Your task to perform on an android device: open wifi settings Image 0: 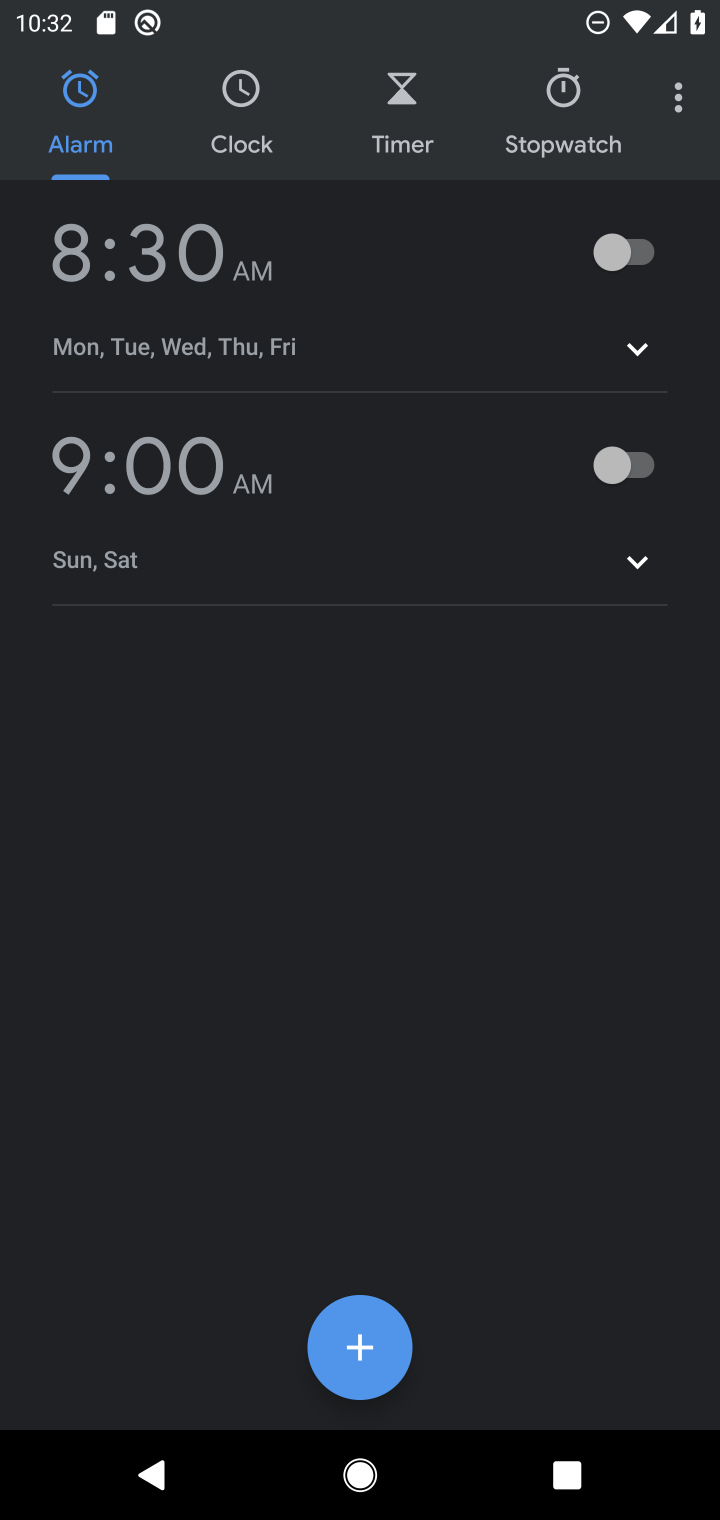
Step 0: press home button
Your task to perform on an android device: open wifi settings Image 1: 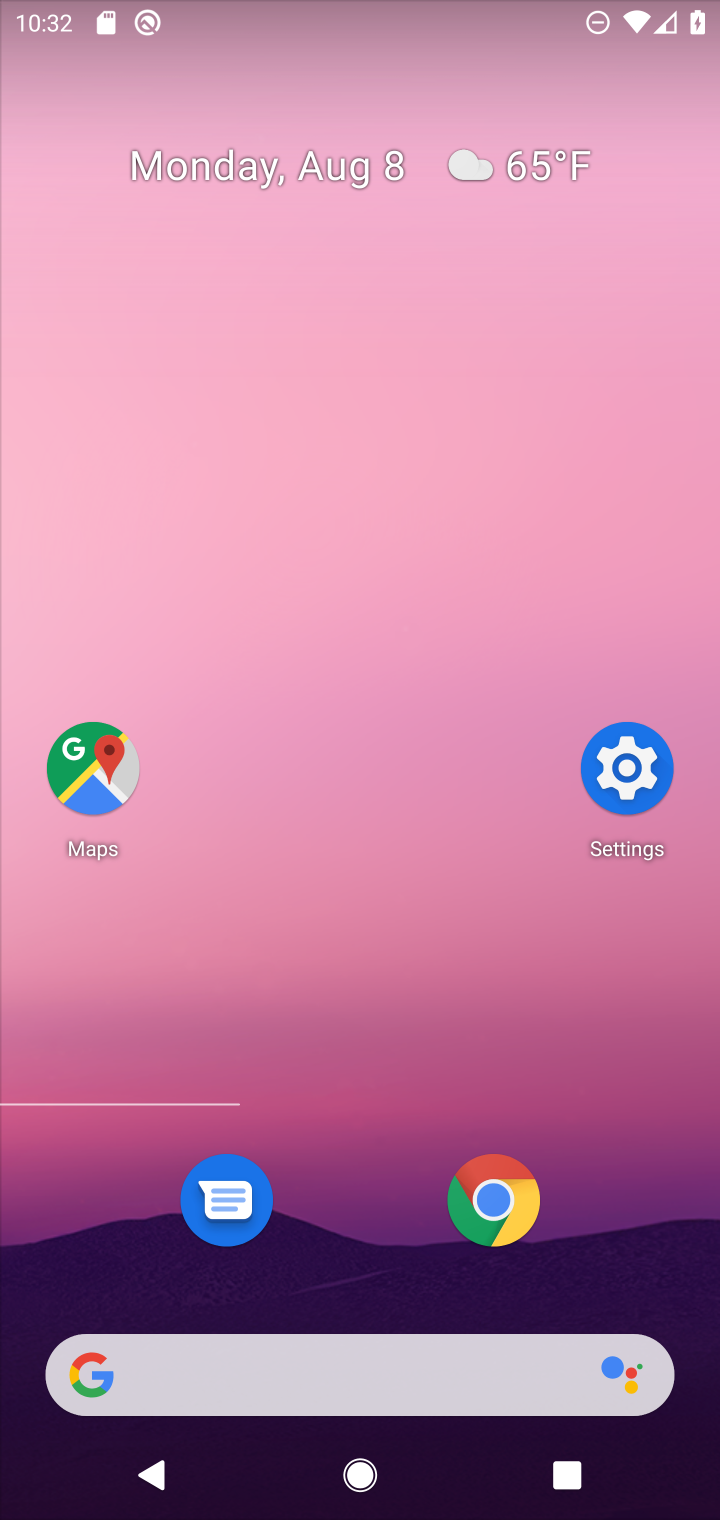
Step 1: click (627, 764)
Your task to perform on an android device: open wifi settings Image 2: 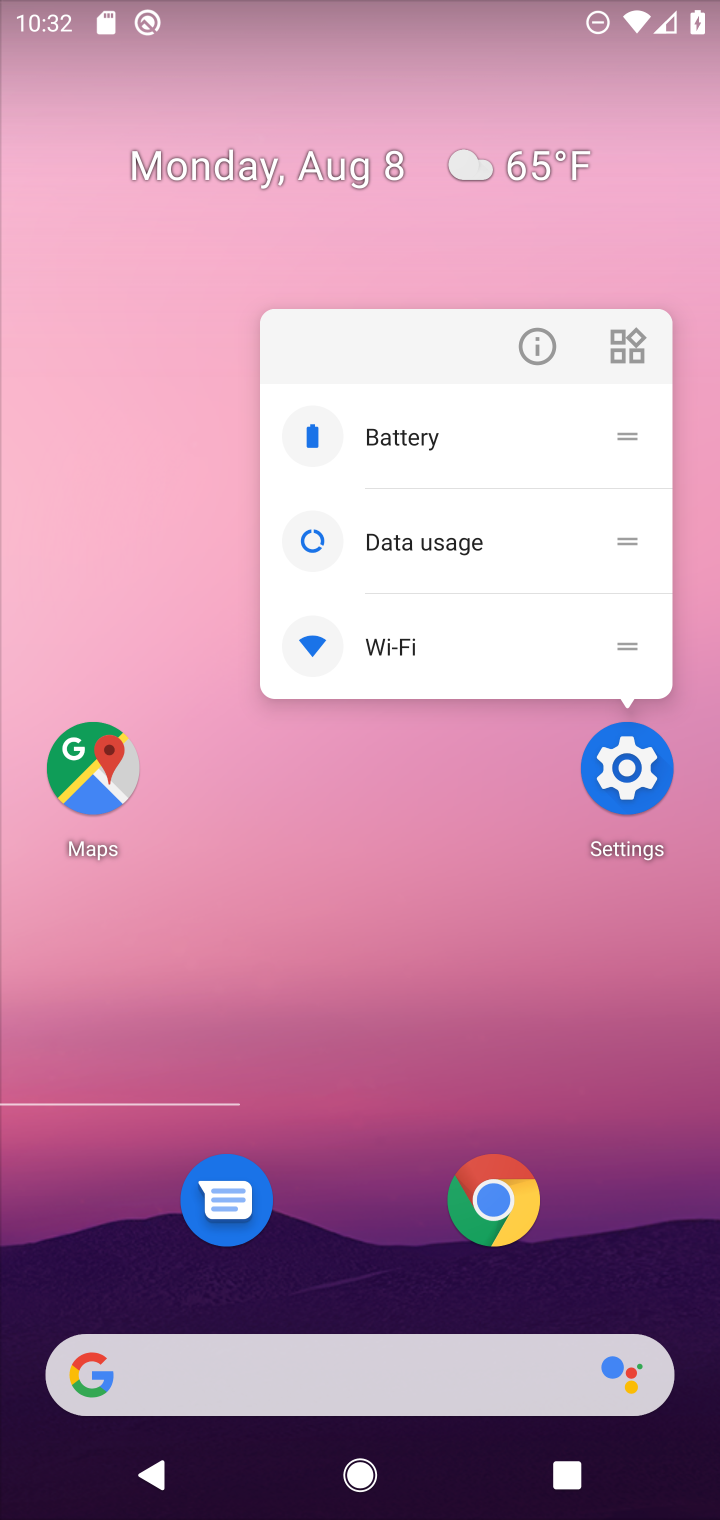
Step 2: click (627, 778)
Your task to perform on an android device: open wifi settings Image 3: 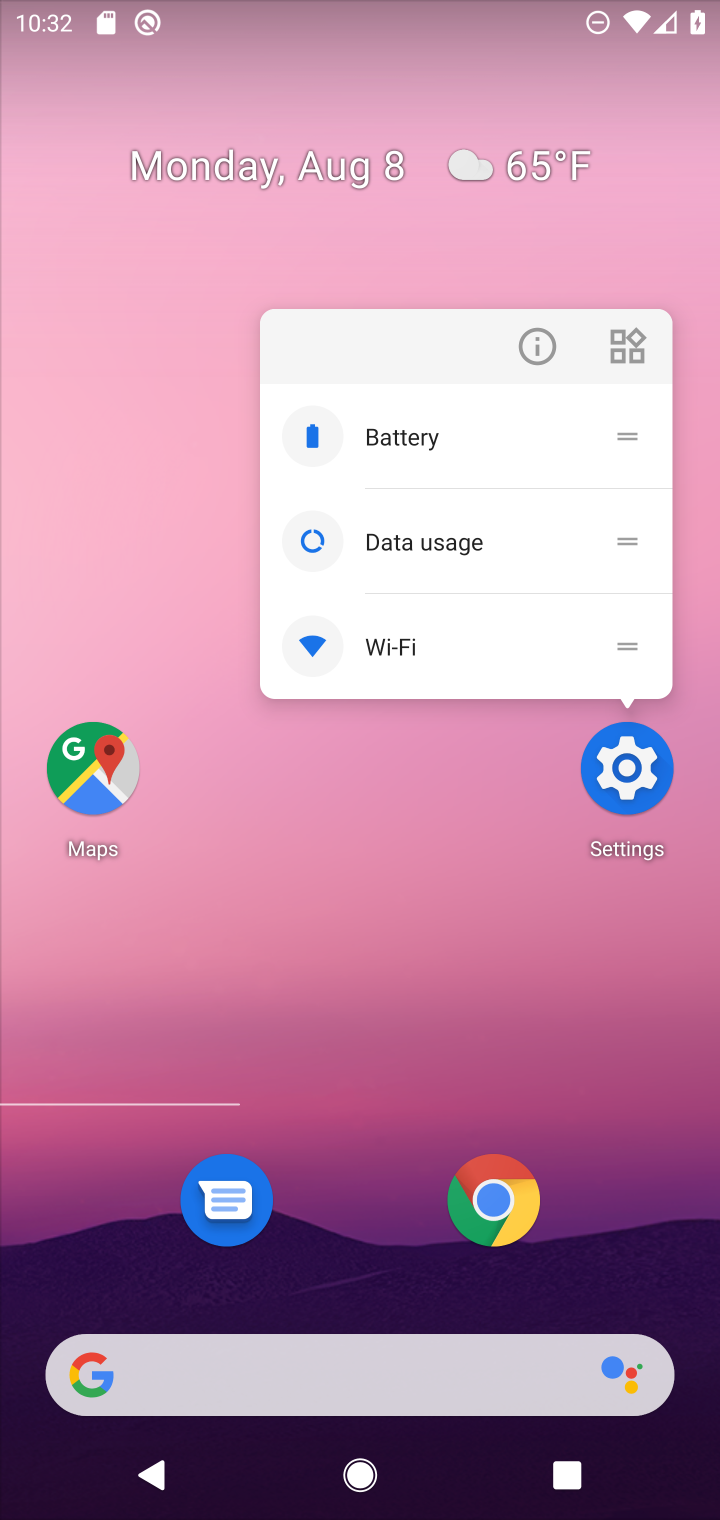
Step 3: click (625, 777)
Your task to perform on an android device: open wifi settings Image 4: 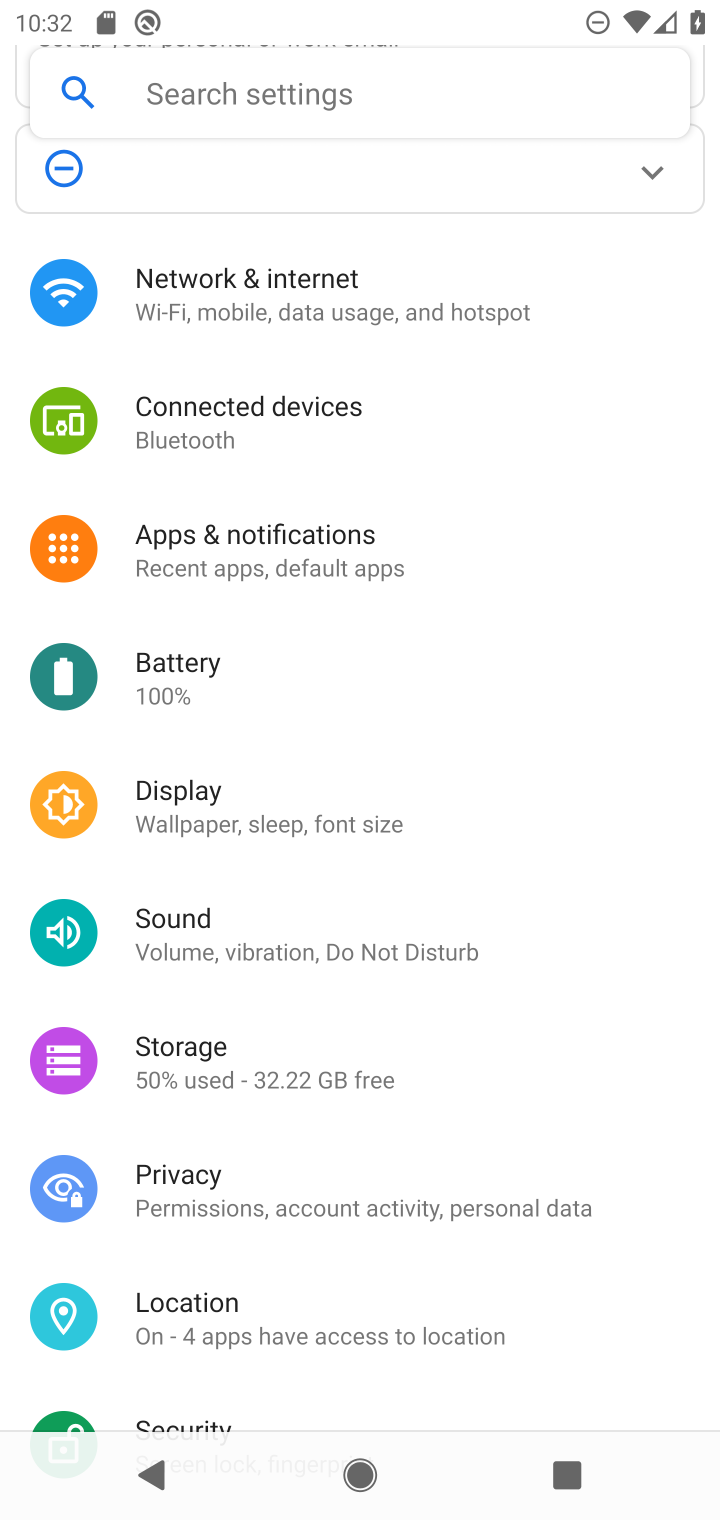
Step 4: click (290, 302)
Your task to perform on an android device: open wifi settings Image 5: 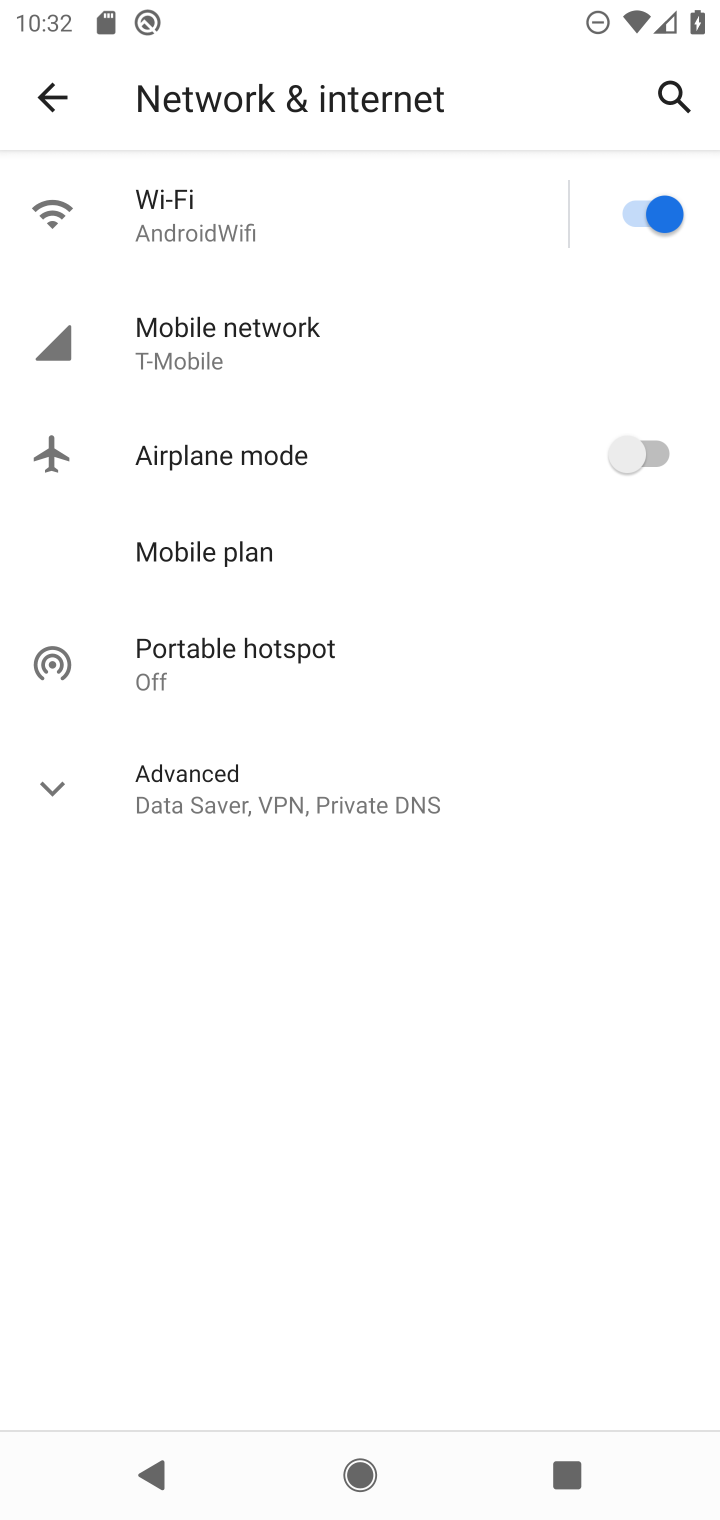
Step 5: click (165, 209)
Your task to perform on an android device: open wifi settings Image 6: 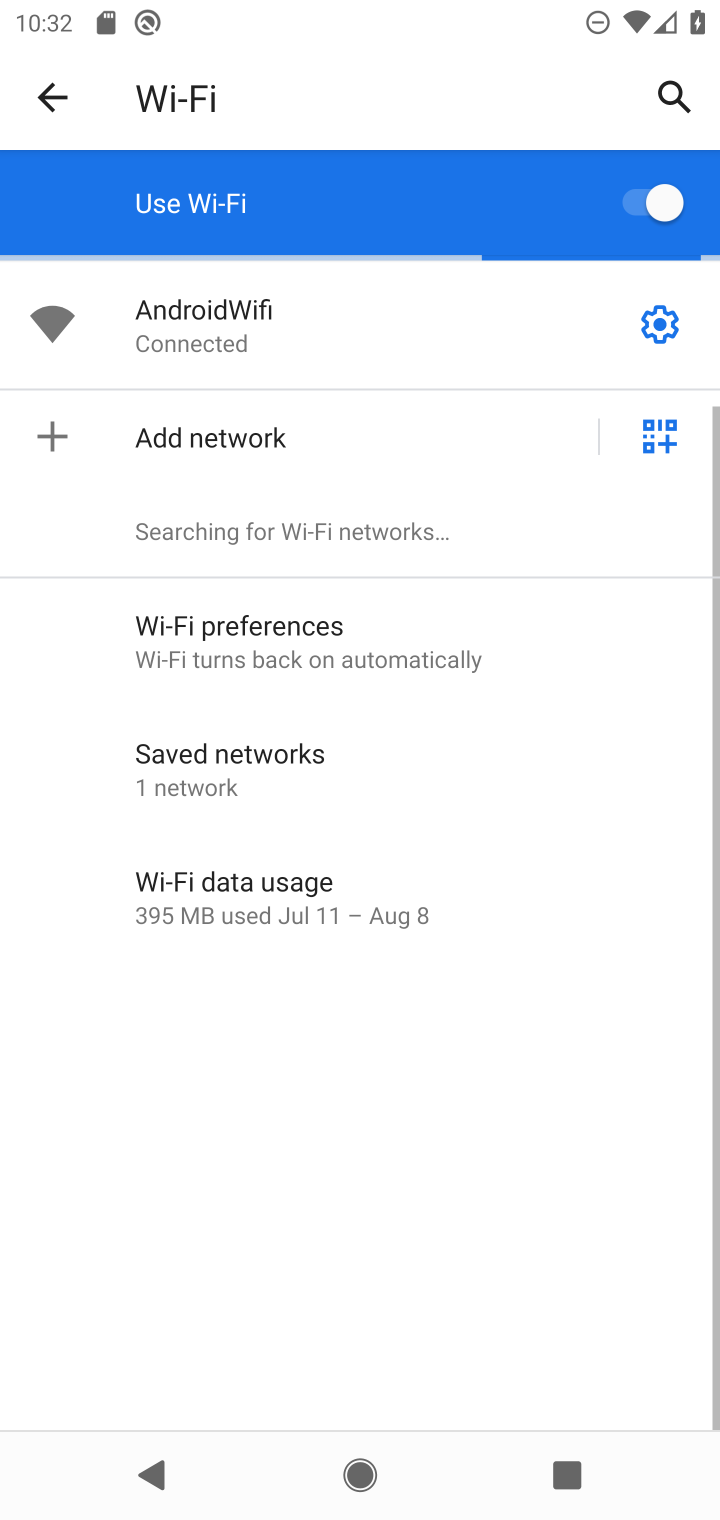
Step 6: task complete